Your task to perform on an android device: see creations saved in the google photos Image 0: 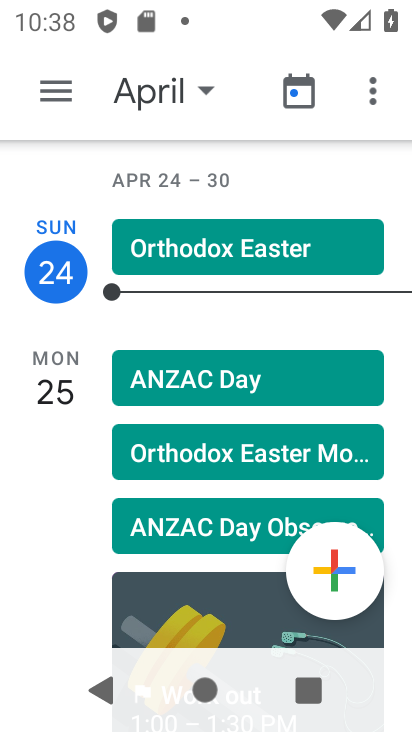
Step 0: press home button
Your task to perform on an android device: see creations saved in the google photos Image 1: 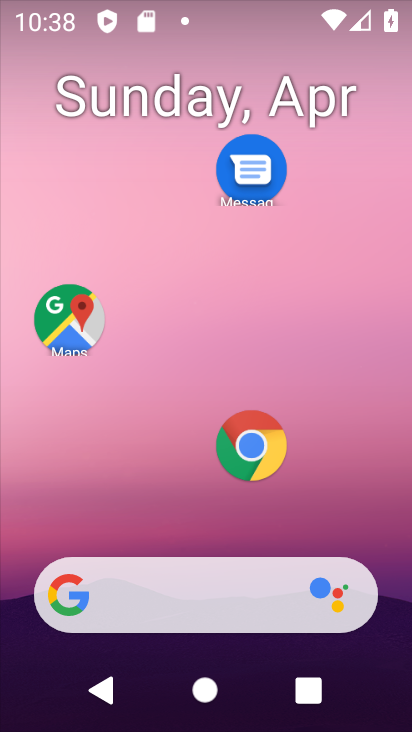
Step 1: drag from (232, 537) to (327, 197)
Your task to perform on an android device: see creations saved in the google photos Image 2: 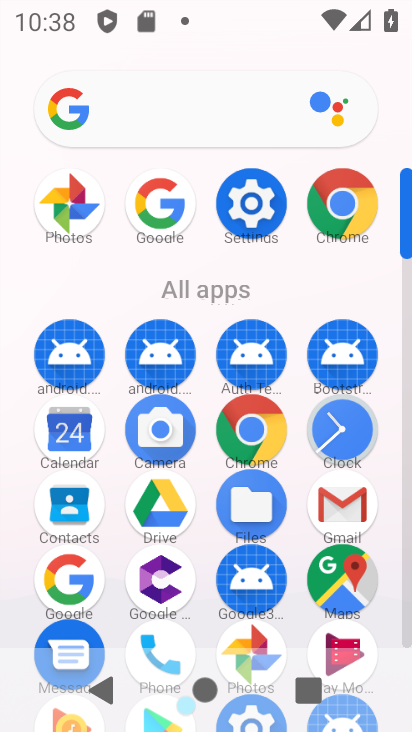
Step 2: drag from (225, 555) to (355, 228)
Your task to perform on an android device: see creations saved in the google photos Image 3: 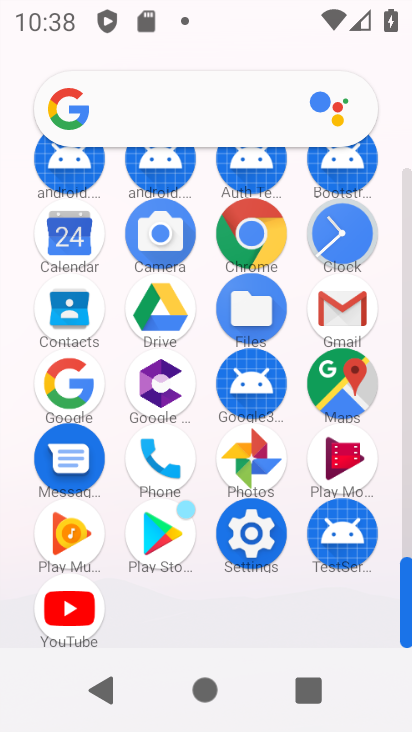
Step 3: click (259, 471)
Your task to perform on an android device: see creations saved in the google photos Image 4: 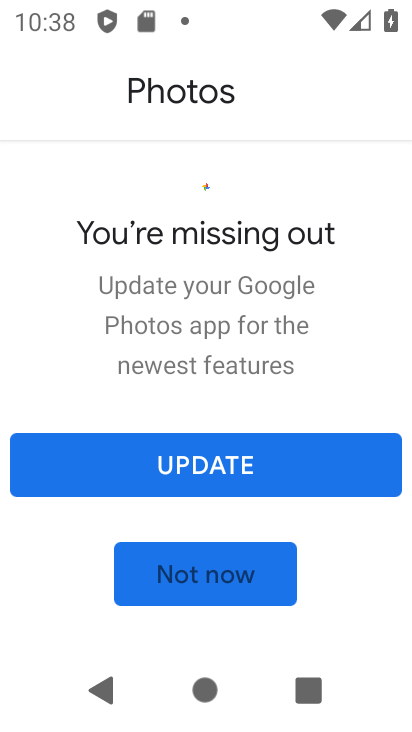
Step 4: click (242, 473)
Your task to perform on an android device: see creations saved in the google photos Image 5: 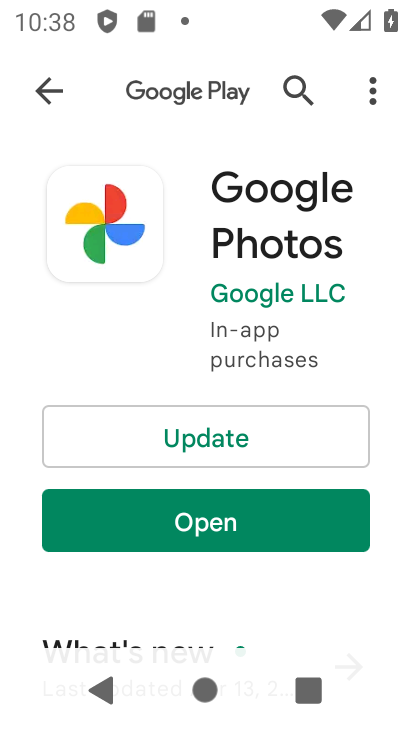
Step 5: click (218, 523)
Your task to perform on an android device: see creations saved in the google photos Image 6: 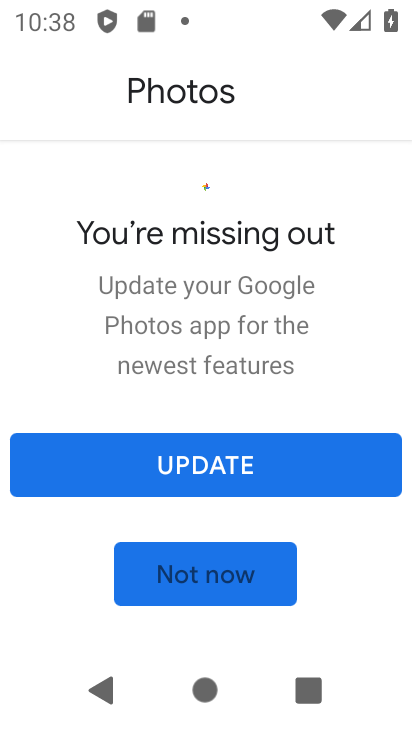
Step 6: click (237, 470)
Your task to perform on an android device: see creations saved in the google photos Image 7: 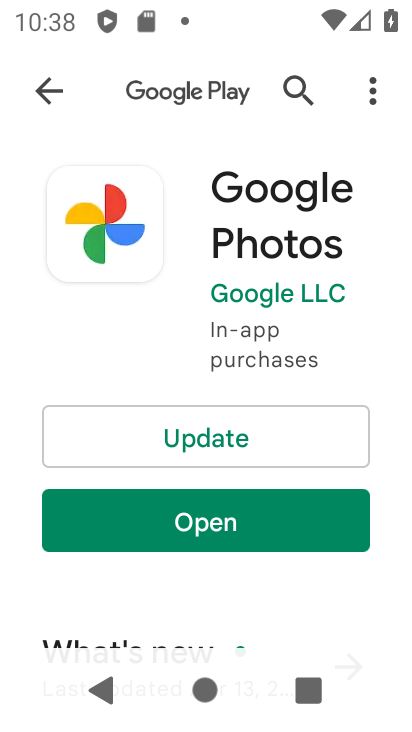
Step 7: click (193, 519)
Your task to perform on an android device: see creations saved in the google photos Image 8: 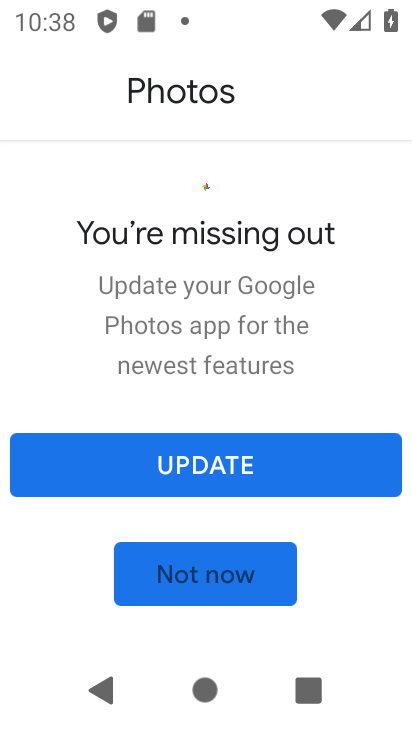
Step 8: click (185, 446)
Your task to perform on an android device: see creations saved in the google photos Image 9: 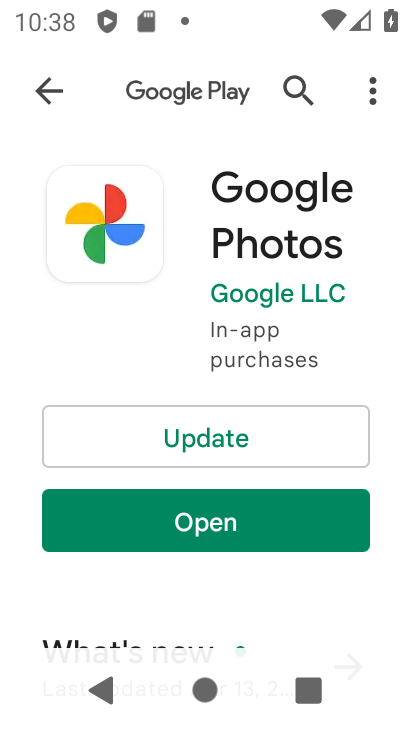
Step 9: click (239, 430)
Your task to perform on an android device: see creations saved in the google photos Image 10: 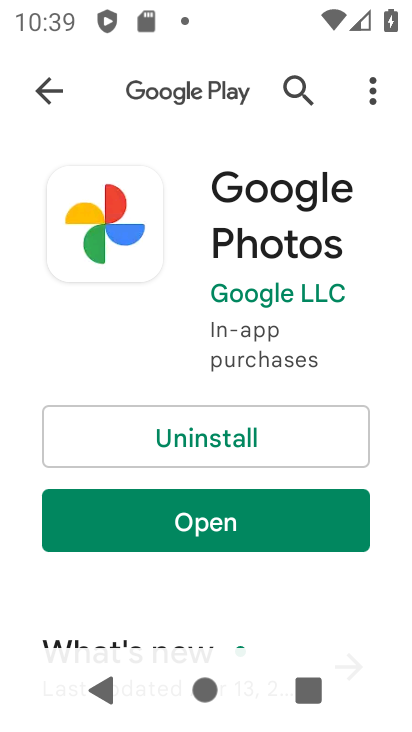
Step 10: click (197, 513)
Your task to perform on an android device: see creations saved in the google photos Image 11: 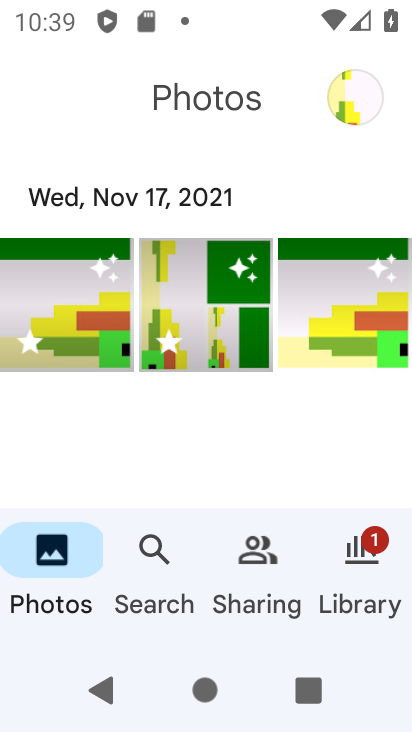
Step 11: task complete